Your task to perform on an android device: Open calendar and show me the third week of next month Image 0: 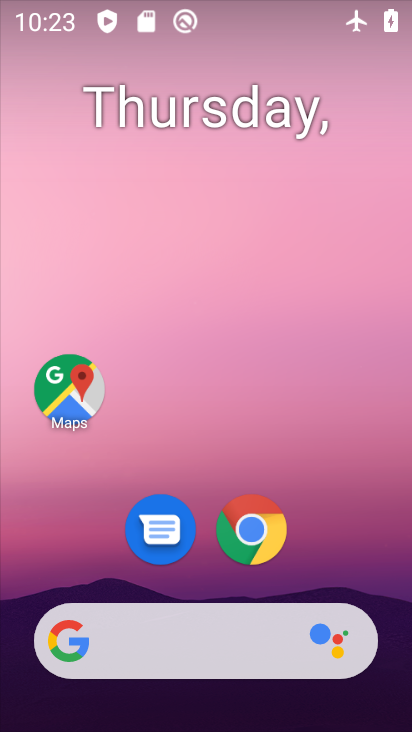
Step 0: drag from (276, 564) to (293, 10)
Your task to perform on an android device: Open calendar and show me the third week of next month Image 1: 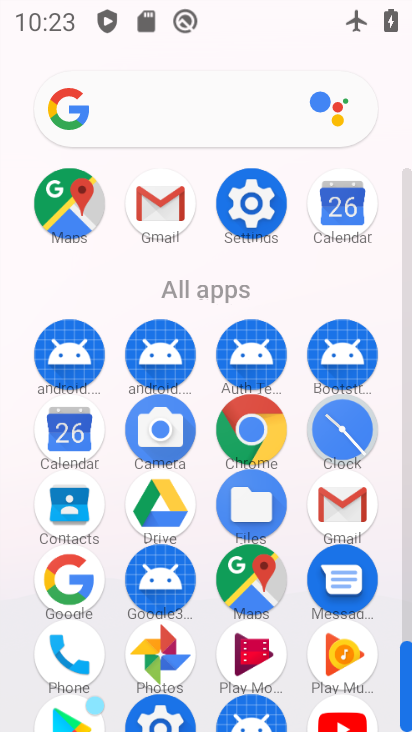
Step 1: click (344, 221)
Your task to perform on an android device: Open calendar and show me the third week of next month Image 2: 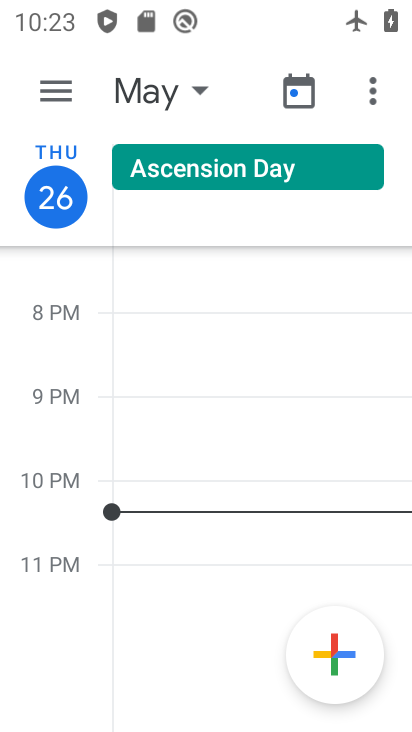
Step 2: click (65, 102)
Your task to perform on an android device: Open calendar and show me the third week of next month Image 3: 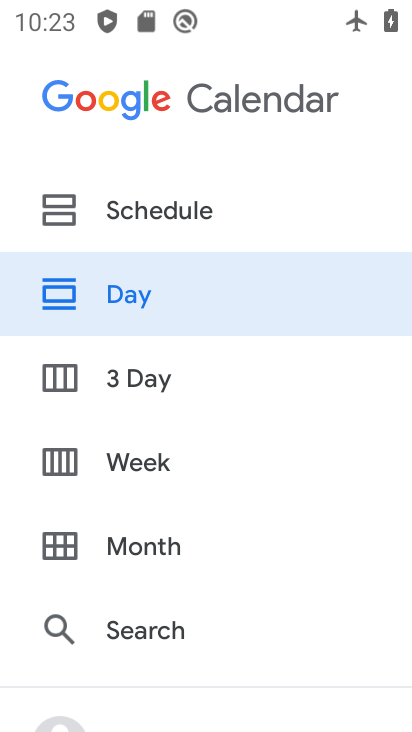
Step 3: click (163, 466)
Your task to perform on an android device: Open calendar and show me the third week of next month Image 4: 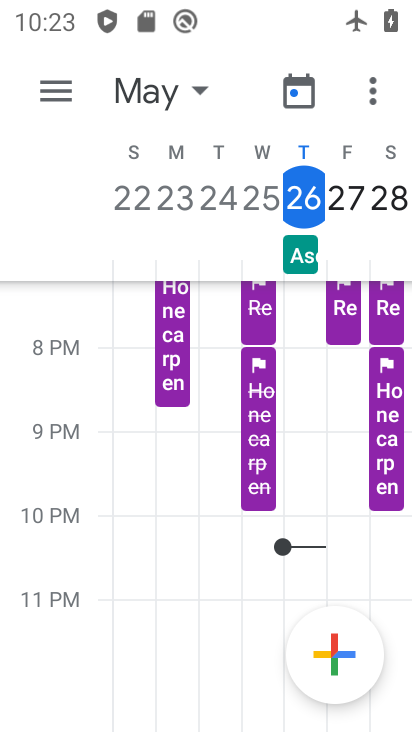
Step 4: click (160, 103)
Your task to perform on an android device: Open calendar and show me the third week of next month Image 5: 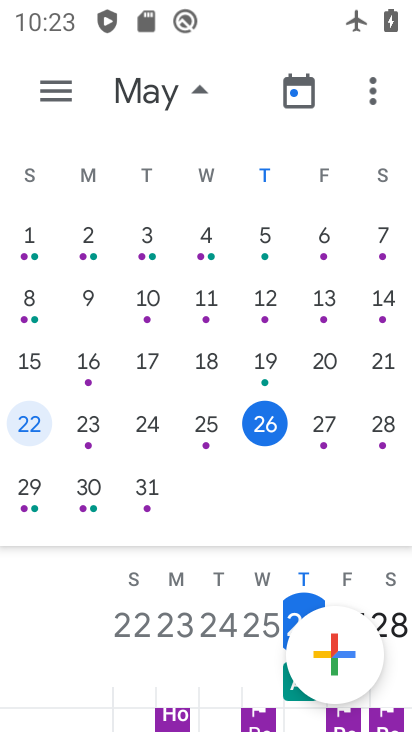
Step 5: drag from (335, 299) to (31, 310)
Your task to perform on an android device: Open calendar and show me the third week of next month Image 6: 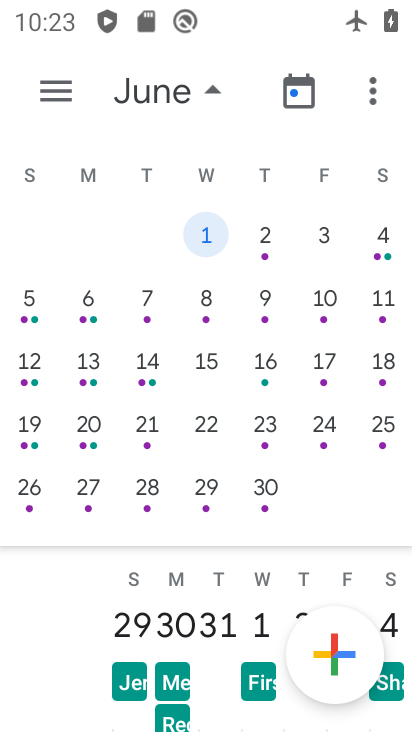
Step 6: click (28, 429)
Your task to perform on an android device: Open calendar and show me the third week of next month Image 7: 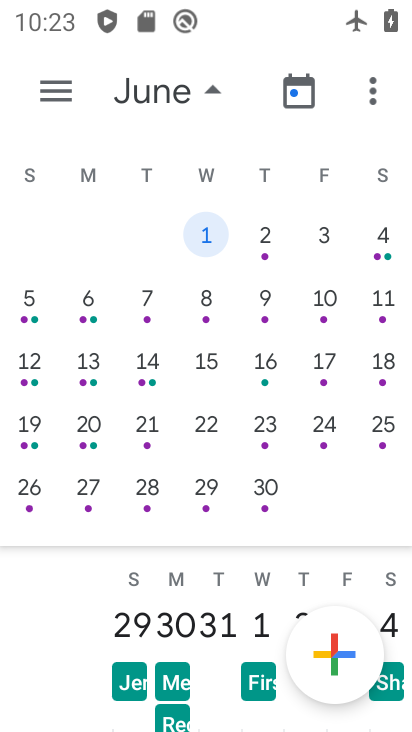
Step 7: click (28, 429)
Your task to perform on an android device: Open calendar and show me the third week of next month Image 8: 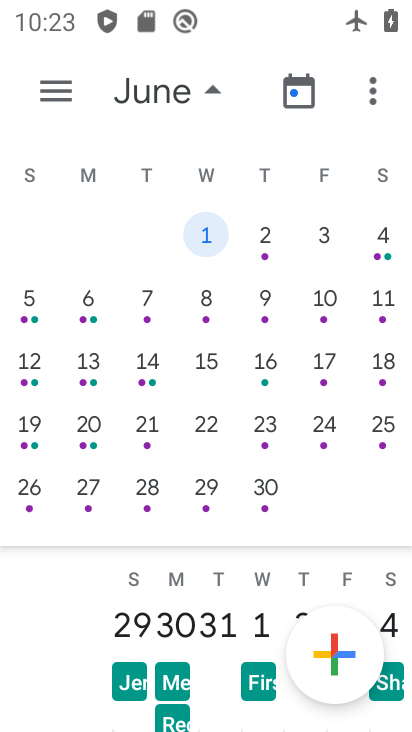
Step 8: click (38, 420)
Your task to perform on an android device: Open calendar and show me the third week of next month Image 9: 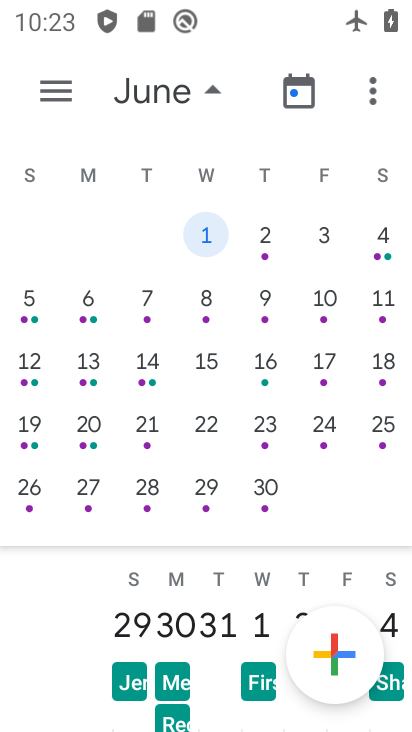
Step 9: click (38, 420)
Your task to perform on an android device: Open calendar and show me the third week of next month Image 10: 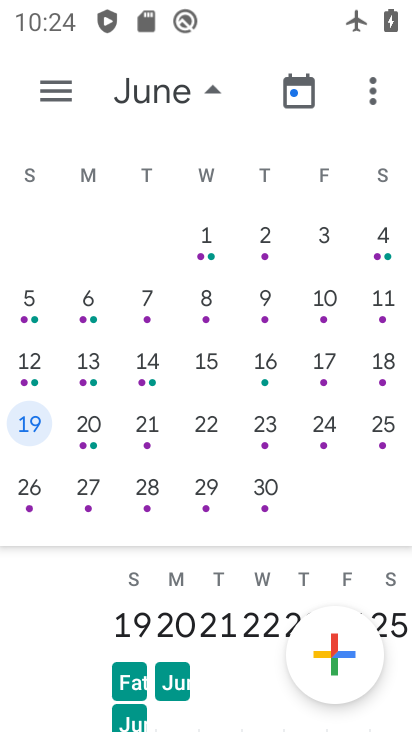
Step 10: task complete